Your task to perform on an android device: open app "Adobe Acrobat Reader" (install if not already installed) and go to login screen Image 0: 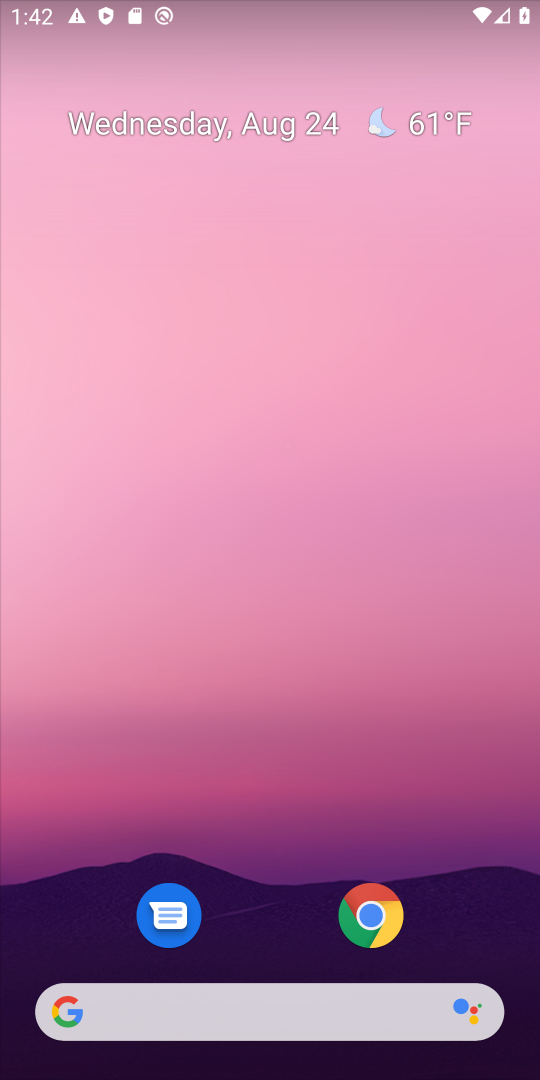
Step 0: drag from (242, 855) to (236, 280)
Your task to perform on an android device: open app "Adobe Acrobat Reader" (install if not already installed) and go to login screen Image 1: 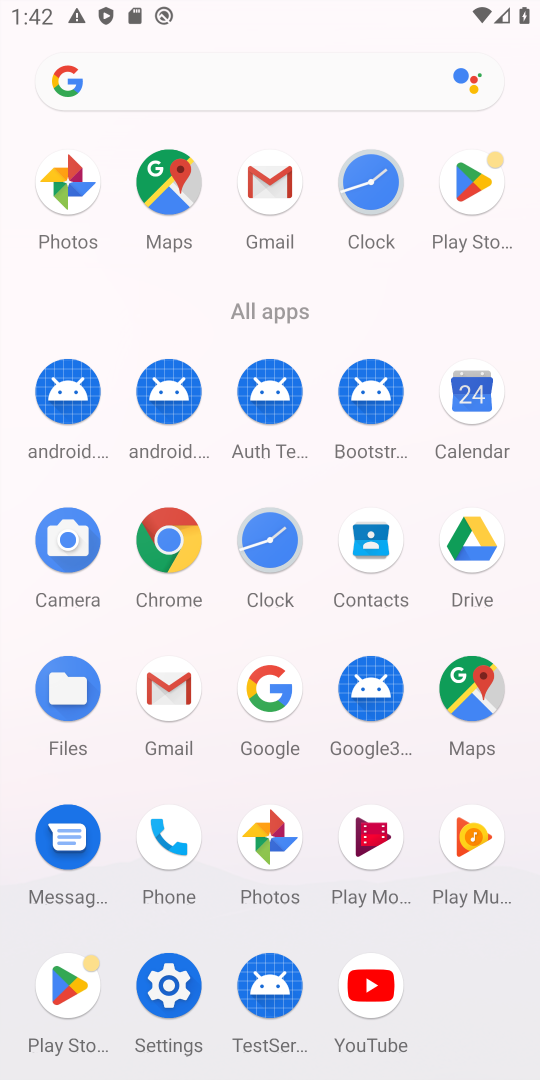
Step 1: click (461, 198)
Your task to perform on an android device: open app "Adobe Acrobat Reader" (install if not already installed) and go to login screen Image 2: 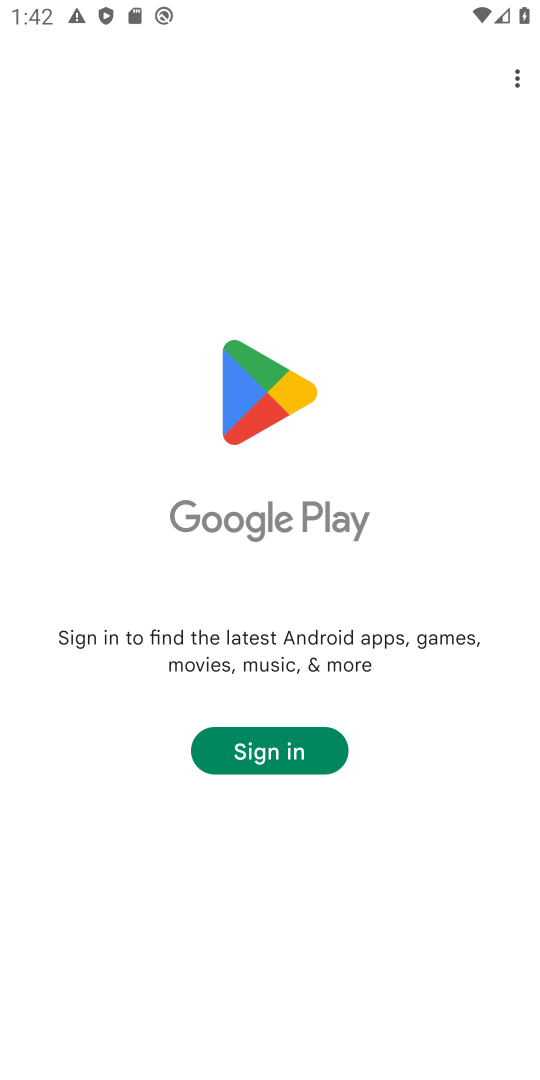
Step 2: task complete